Your task to perform on an android device: check google app version Image 0: 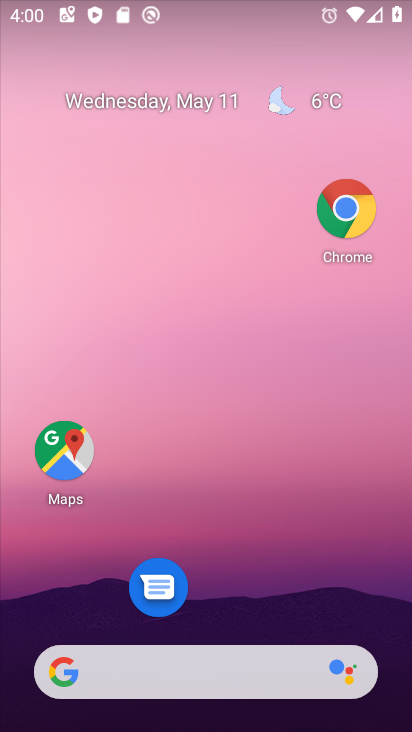
Step 0: drag from (268, 553) to (273, 125)
Your task to perform on an android device: check google app version Image 1: 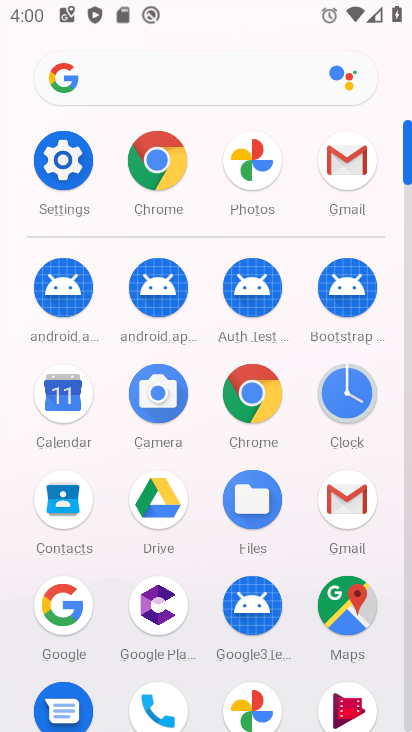
Step 1: click (55, 618)
Your task to perform on an android device: check google app version Image 2: 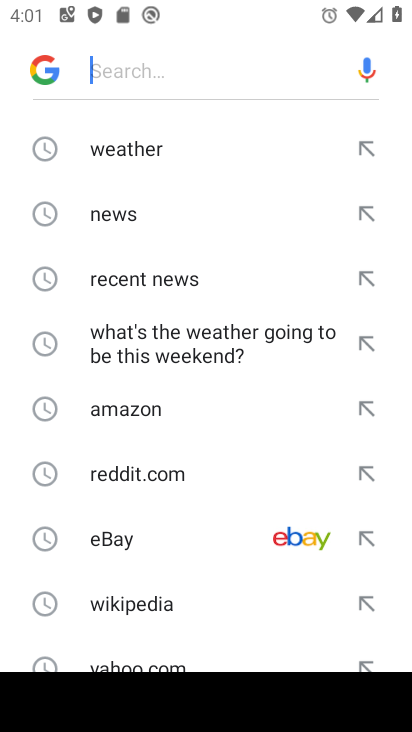
Step 2: click (52, 65)
Your task to perform on an android device: check google app version Image 3: 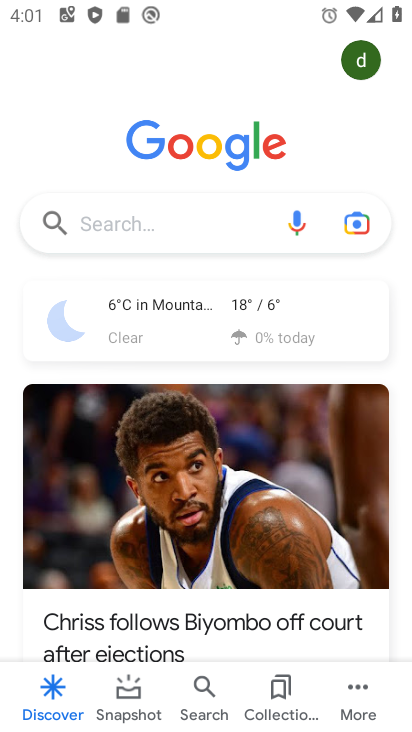
Step 3: click (361, 702)
Your task to perform on an android device: check google app version Image 4: 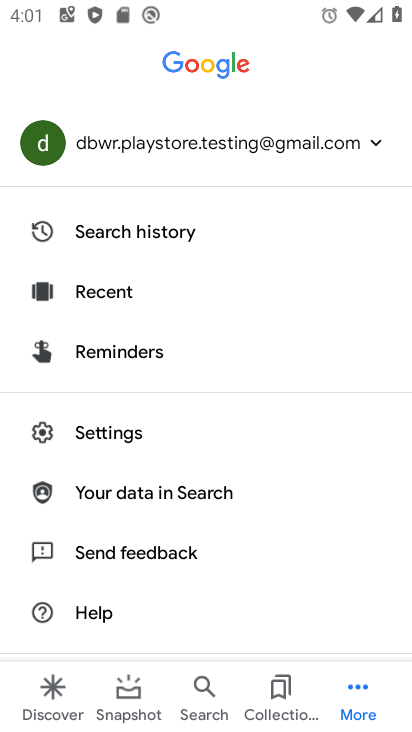
Step 4: click (138, 432)
Your task to perform on an android device: check google app version Image 5: 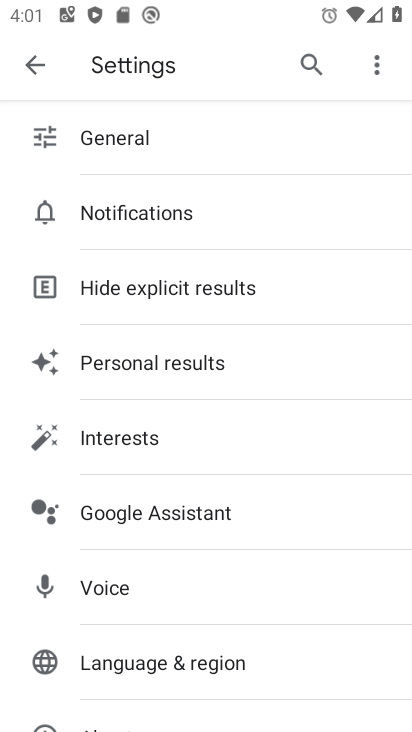
Step 5: drag from (218, 572) to (222, 97)
Your task to perform on an android device: check google app version Image 6: 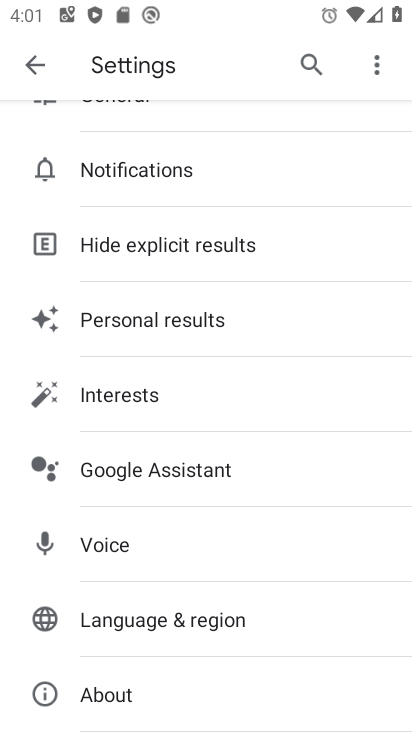
Step 6: click (147, 684)
Your task to perform on an android device: check google app version Image 7: 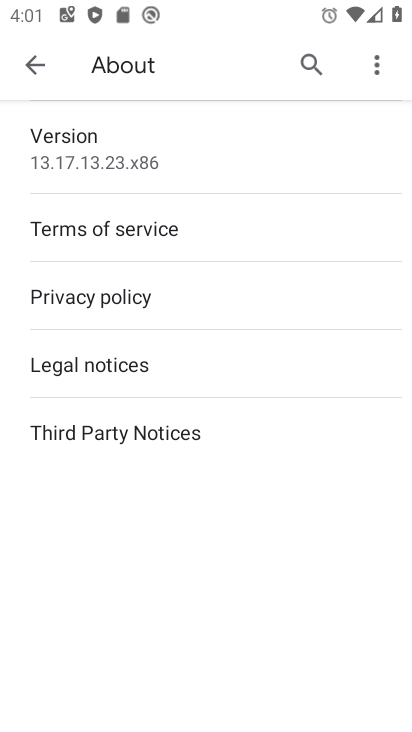
Step 7: click (167, 144)
Your task to perform on an android device: check google app version Image 8: 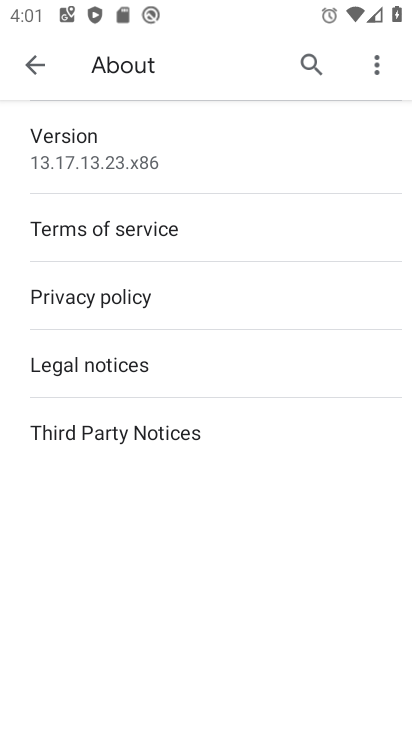
Step 8: task complete